Your task to perform on an android device: open app "Booking.com: Hotels and more" (install if not already installed) Image 0: 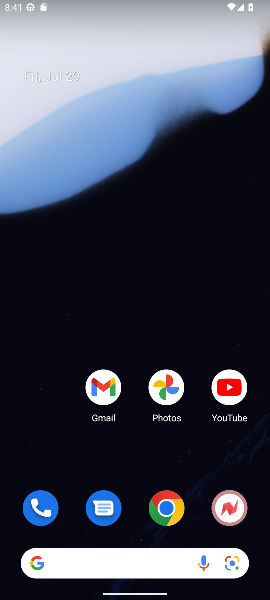
Step 0: drag from (182, 451) to (177, 61)
Your task to perform on an android device: open app "Booking.com: Hotels and more" (install if not already installed) Image 1: 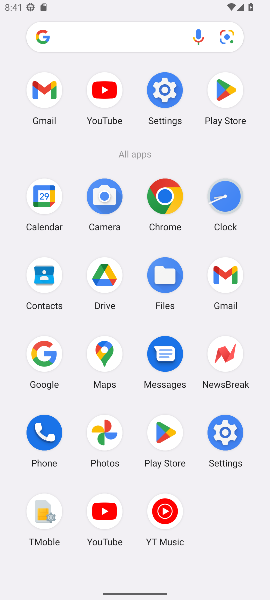
Step 1: click (210, 80)
Your task to perform on an android device: open app "Booking.com: Hotels and more" (install if not already installed) Image 2: 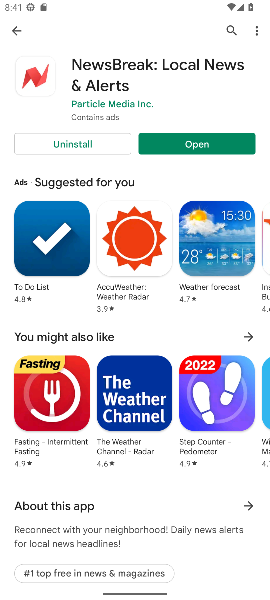
Step 2: click (231, 31)
Your task to perform on an android device: open app "Booking.com: Hotels and more" (install if not already installed) Image 3: 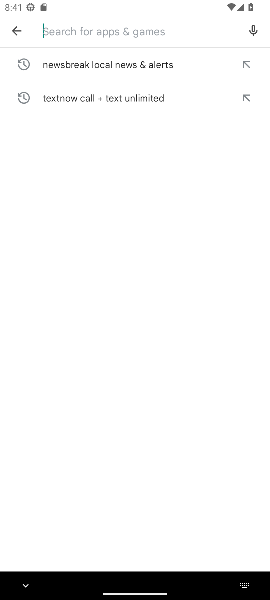
Step 3: type "booking.com: hotel and more"
Your task to perform on an android device: open app "Booking.com: Hotels and more" (install if not already installed) Image 4: 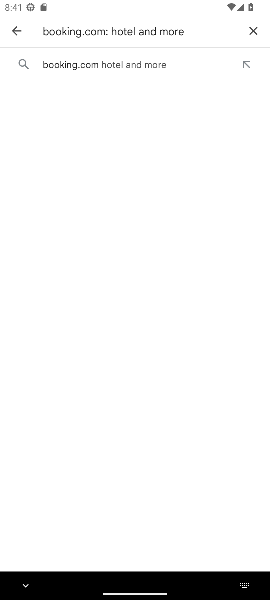
Step 4: click (117, 62)
Your task to perform on an android device: open app "Booking.com: Hotels and more" (install if not already installed) Image 5: 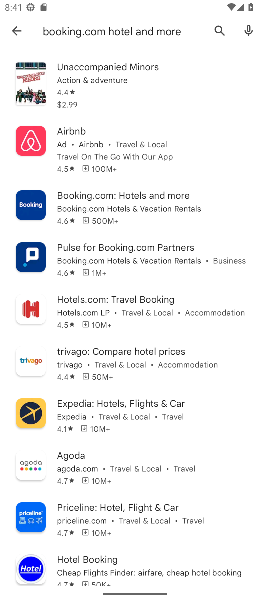
Step 5: click (133, 208)
Your task to perform on an android device: open app "Booking.com: Hotels and more" (install if not already installed) Image 6: 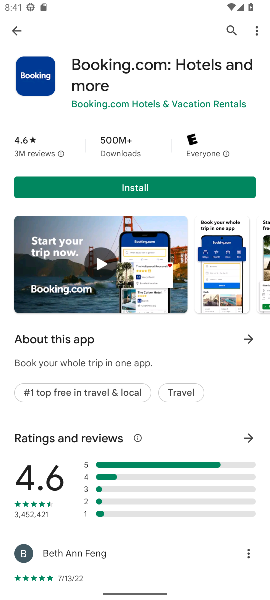
Step 6: click (172, 186)
Your task to perform on an android device: open app "Booking.com: Hotels and more" (install if not already installed) Image 7: 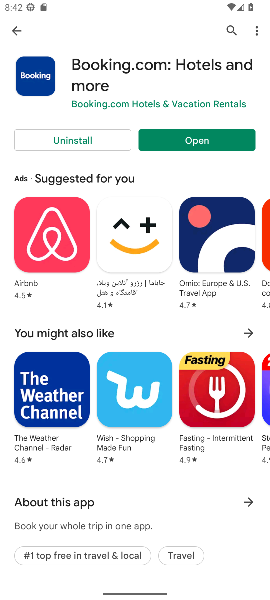
Step 7: click (205, 143)
Your task to perform on an android device: open app "Booking.com: Hotels and more" (install if not already installed) Image 8: 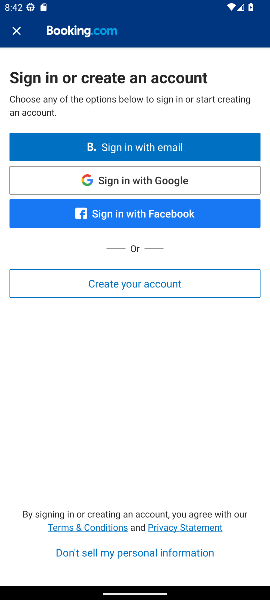
Step 8: task complete